Your task to perform on an android device: check storage Image 0: 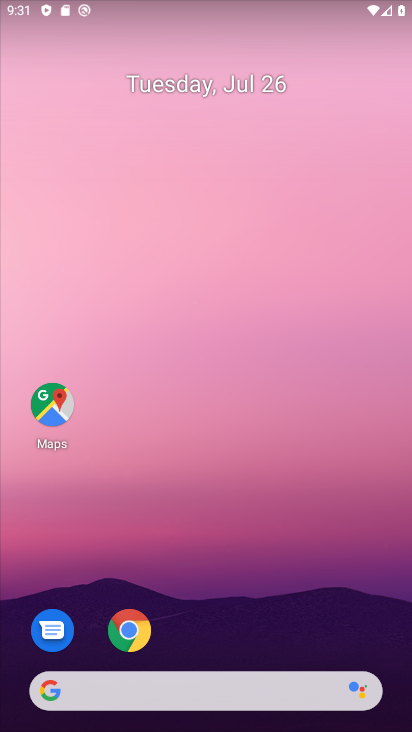
Step 0: drag from (372, 622) to (334, 74)
Your task to perform on an android device: check storage Image 1: 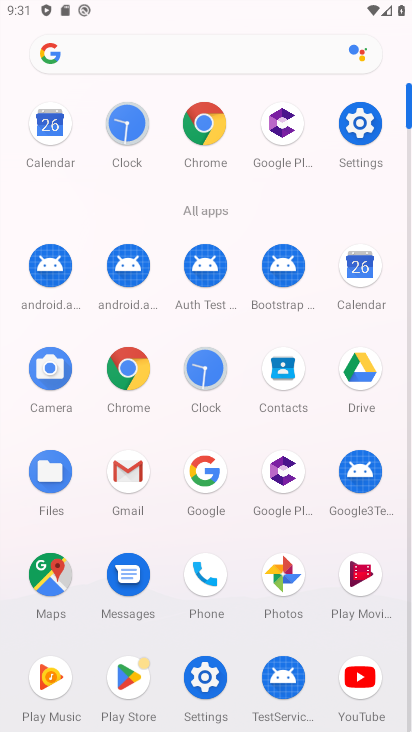
Step 1: click (206, 677)
Your task to perform on an android device: check storage Image 2: 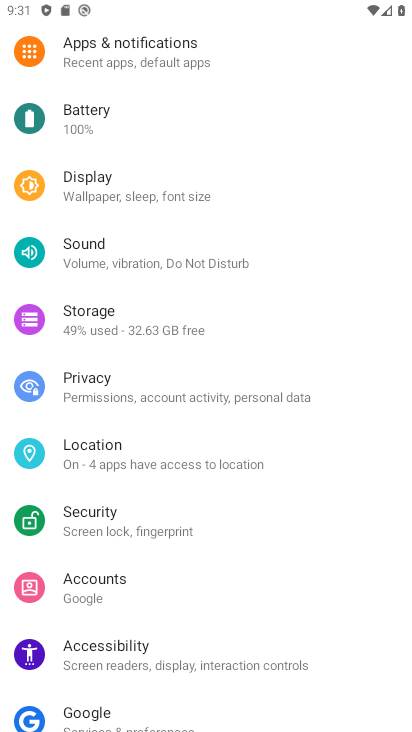
Step 2: click (83, 317)
Your task to perform on an android device: check storage Image 3: 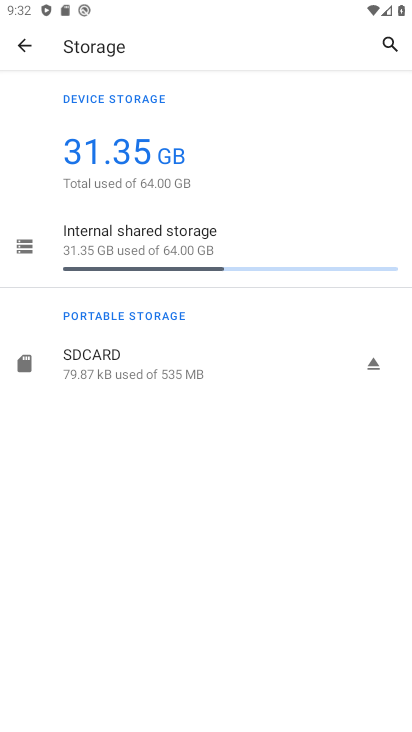
Step 3: task complete